Your task to perform on an android device: Go to sound settings Image 0: 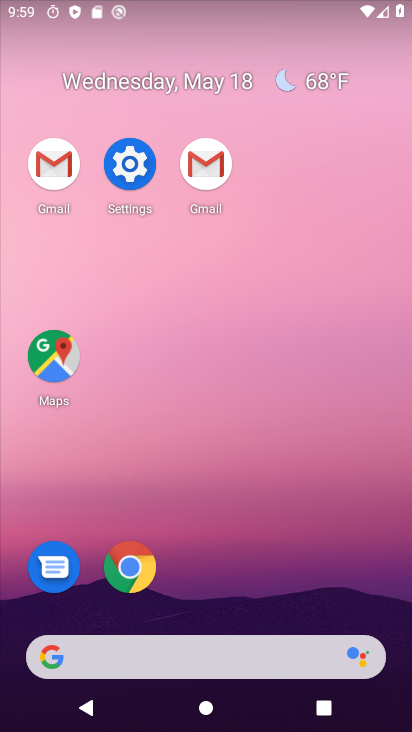
Step 0: click (146, 171)
Your task to perform on an android device: Go to sound settings Image 1: 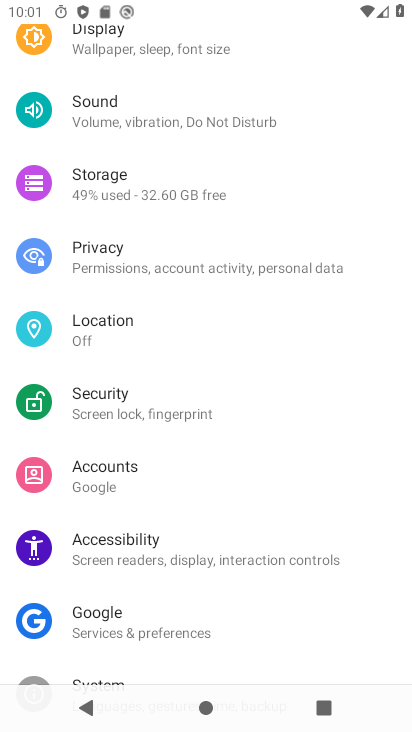
Step 1: click (191, 109)
Your task to perform on an android device: Go to sound settings Image 2: 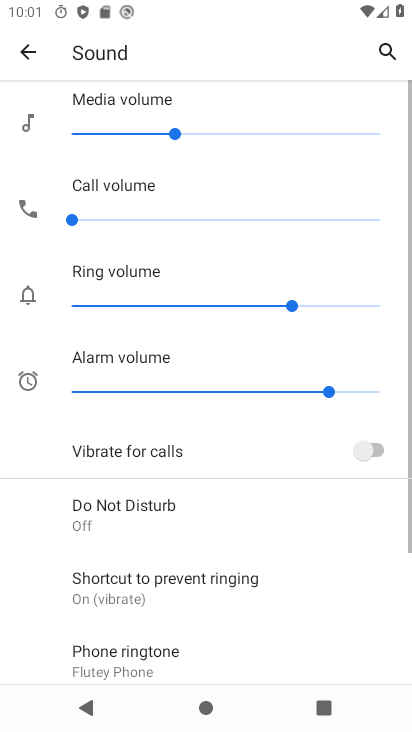
Step 2: task complete